Your task to perform on an android device: check out phone information Image 0: 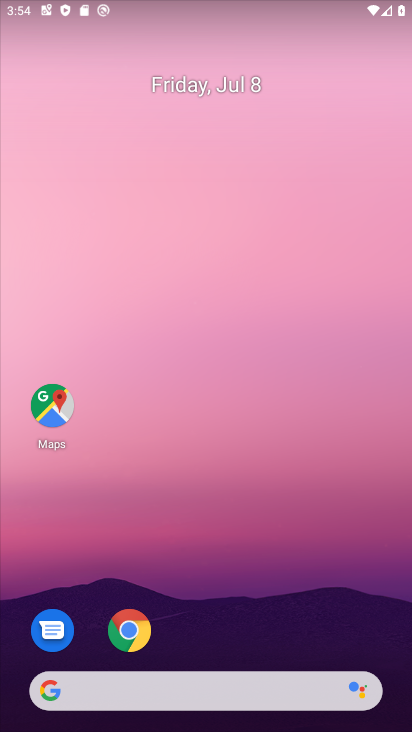
Step 0: drag from (234, 644) to (234, 168)
Your task to perform on an android device: check out phone information Image 1: 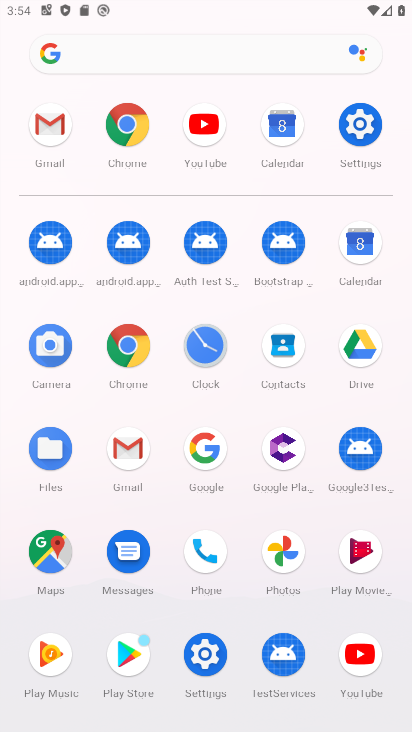
Step 1: click (355, 133)
Your task to perform on an android device: check out phone information Image 2: 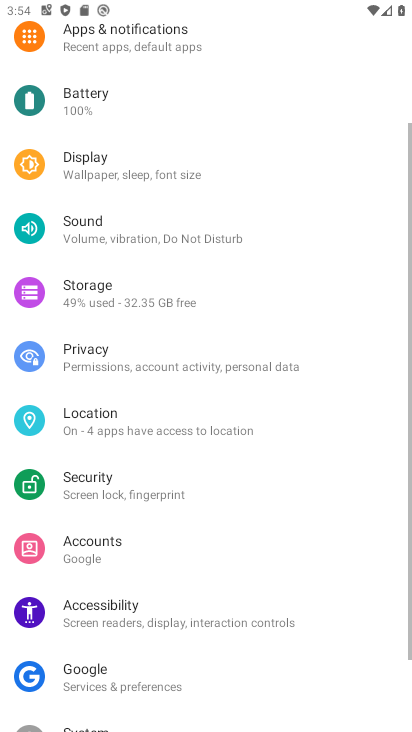
Step 2: drag from (224, 602) to (287, 183)
Your task to perform on an android device: check out phone information Image 3: 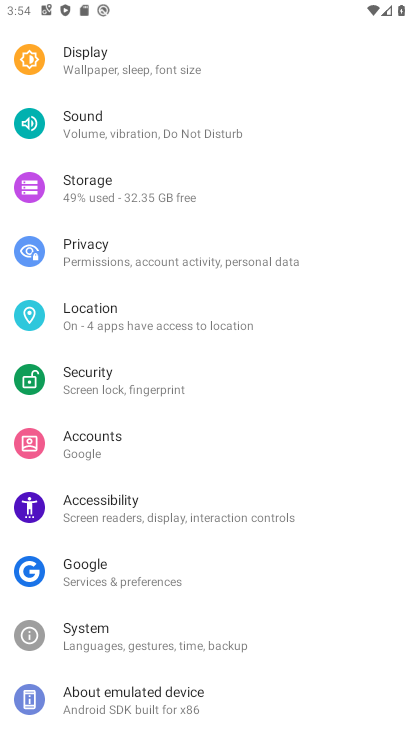
Step 3: click (160, 642)
Your task to perform on an android device: check out phone information Image 4: 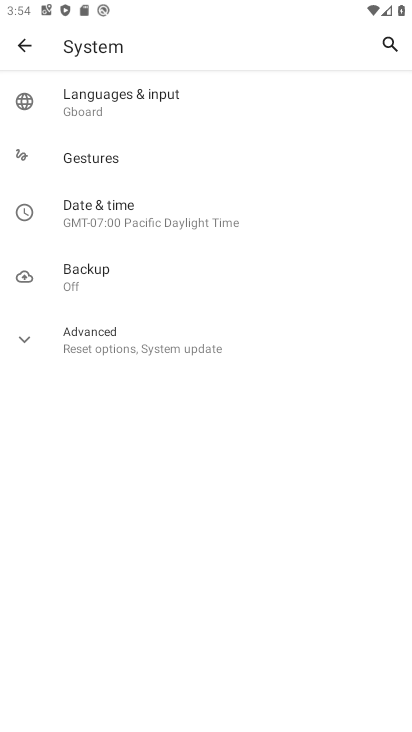
Step 4: task complete